Your task to perform on an android device: toggle pop-ups in chrome Image 0: 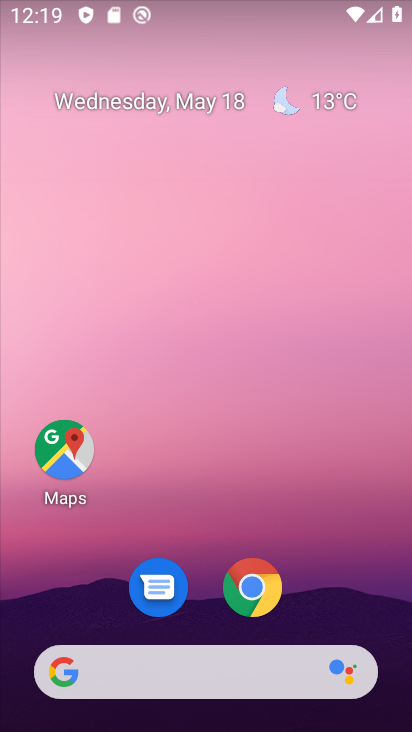
Step 0: click (254, 602)
Your task to perform on an android device: toggle pop-ups in chrome Image 1: 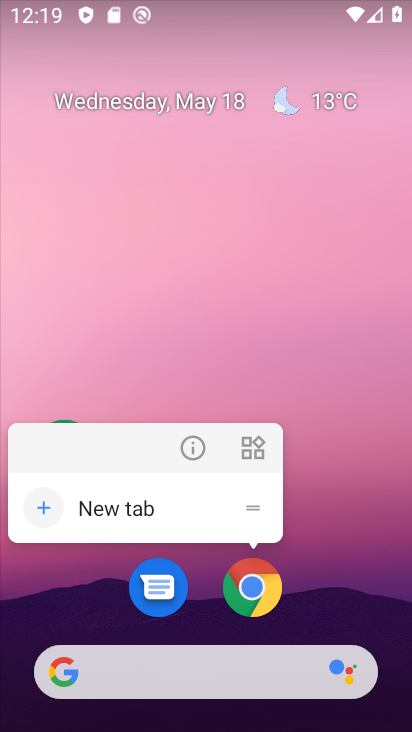
Step 1: click (250, 593)
Your task to perform on an android device: toggle pop-ups in chrome Image 2: 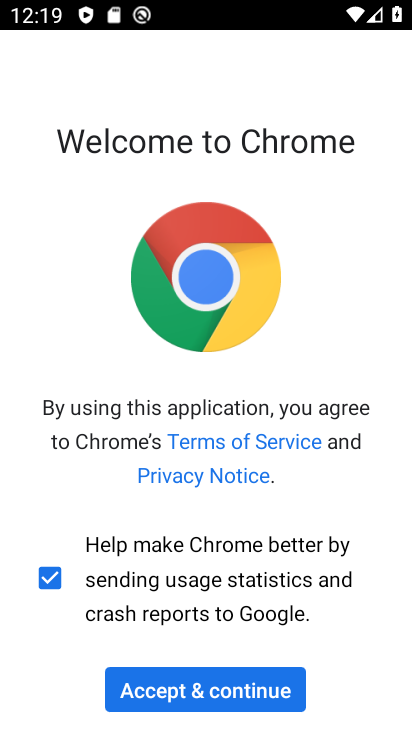
Step 2: click (187, 690)
Your task to perform on an android device: toggle pop-ups in chrome Image 3: 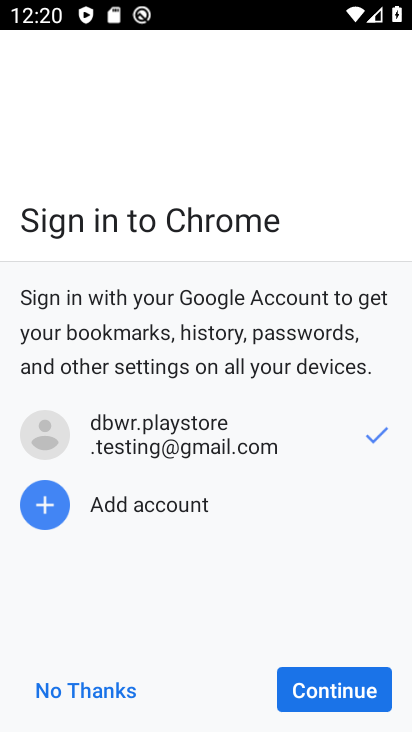
Step 3: click (330, 701)
Your task to perform on an android device: toggle pop-ups in chrome Image 4: 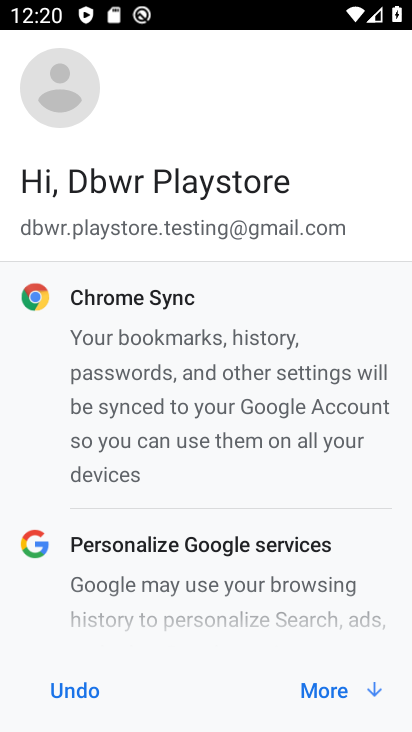
Step 4: click (330, 692)
Your task to perform on an android device: toggle pop-ups in chrome Image 5: 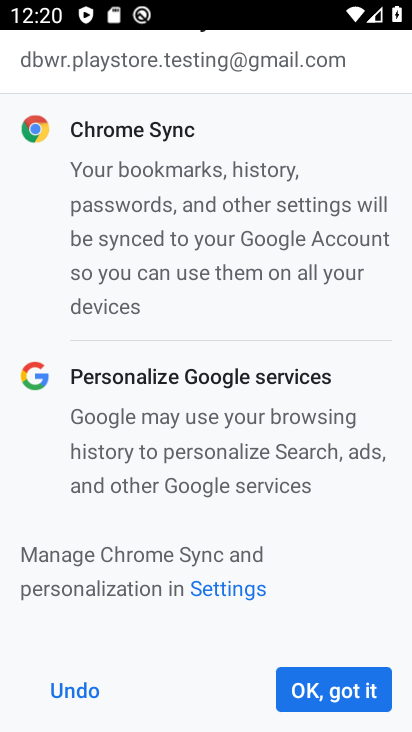
Step 5: click (351, 685)
Your task to perform on an android device: toggle pop-ups in chrome Image 6: 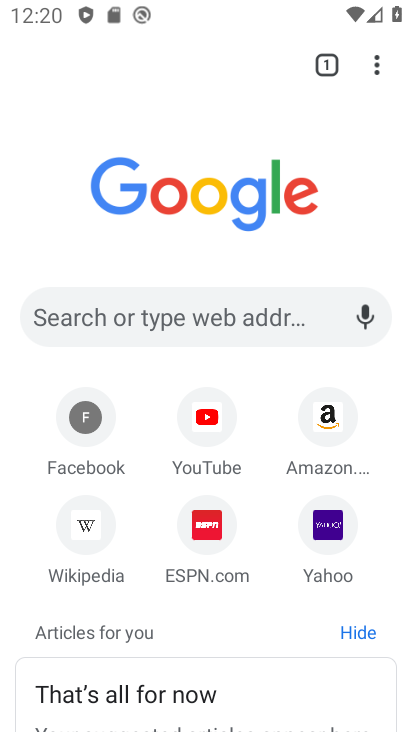
Step 6: drag from (366, 66) to (164, 547)
Your task to perform on an android device: toggle pop-ups in chrome Image 7: 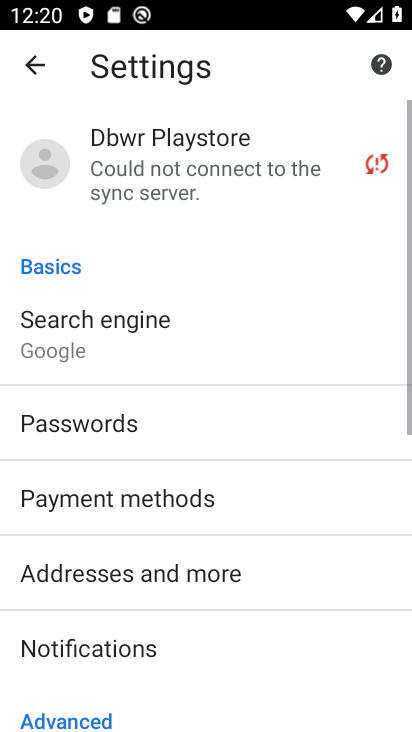
Step 7: drag from (136, 646) to (233, 151)
Your task to perform on an android device: toggle pop-ups in chrome Image 8: 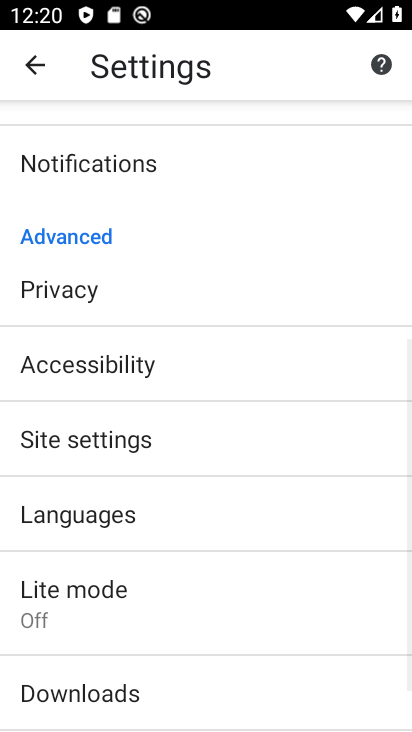
Step 8: click (99, 446)
Your task to perform on an android device: toggle pop-ups in chrome Image 9: 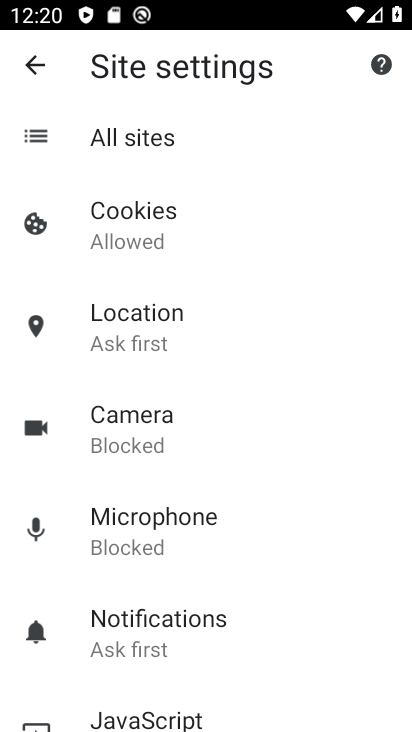
Step 9: drag from (124, 632) to (229, 247)
Your task to perform on an android device: toggle pop-ups in chrome Image 10: 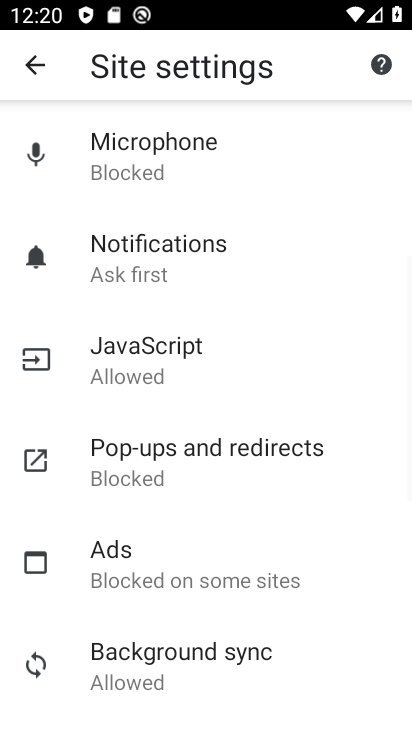
Step 10: click (164, 453)
Your task to perform on an android device: toggle pop-ups in chrome Image 11: 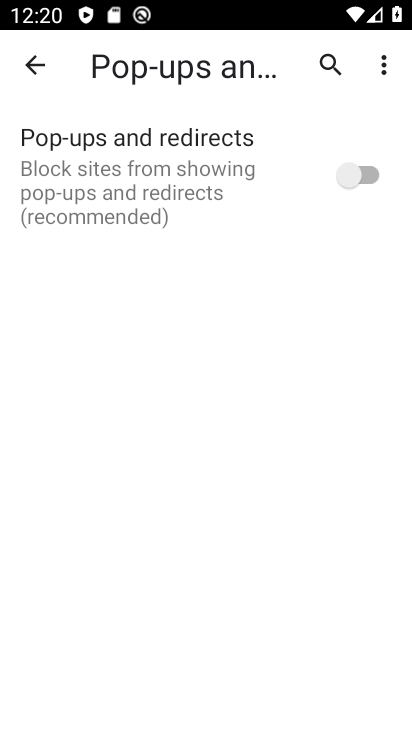
Step 11: click (347, 178)
Your task to perform on an android device: toggle pop-ups in chrome Image 12: 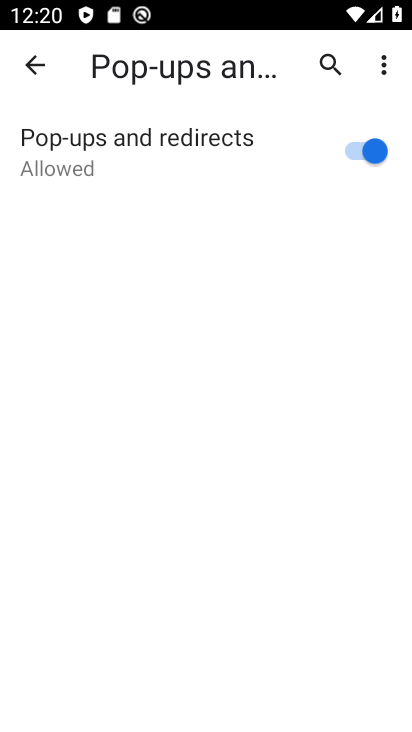
Step 12: task complete